Your task to perform on an android device: Go to battery settings Image 0: 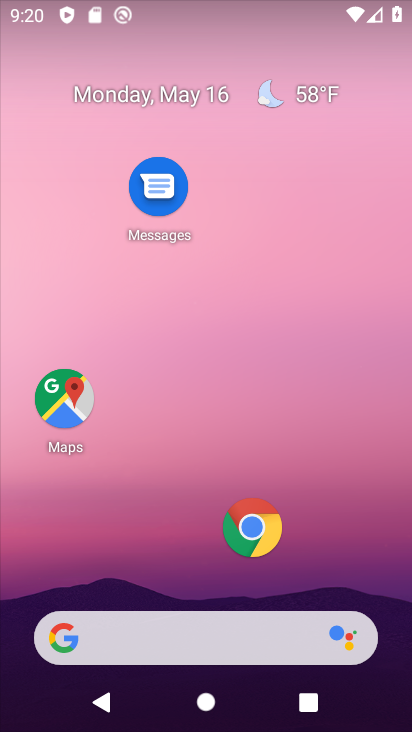
Step 0: drag from (181, 551) to (230, 67)
Your task to perform on an android device: Go to battery settings Image 1: 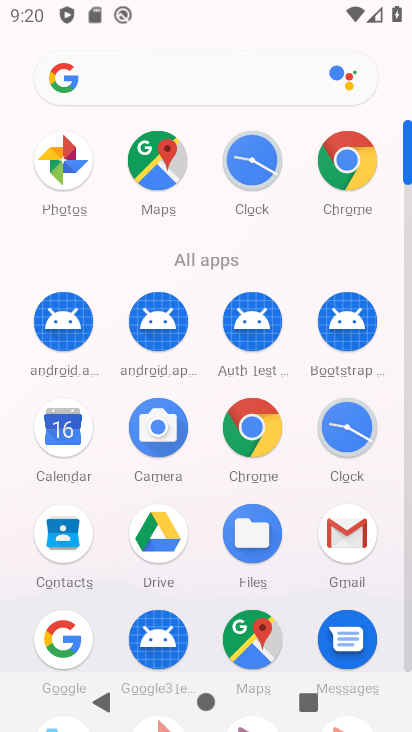
Step 1: drag from (85, 478) to (98, 125)
Your task to perform on an android device: Go to battery settings Image 2: 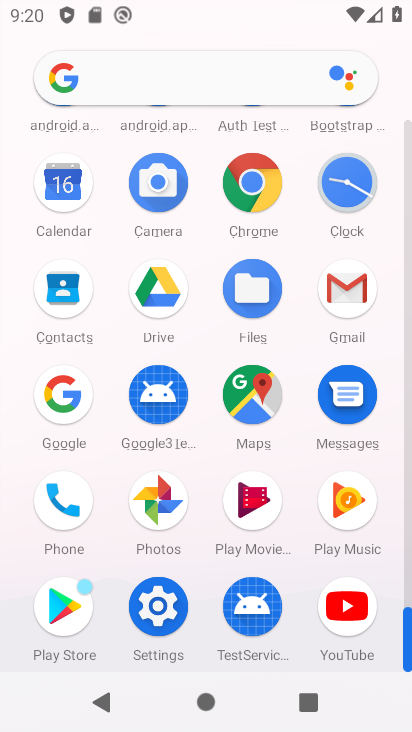
Step 2: click (159, 616)
Your task to perform on an android device: Go to battery settings Image 3: 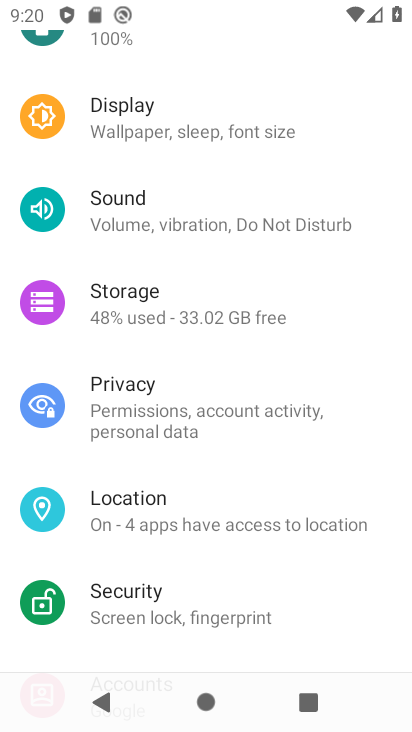
Step 3: drag from (184, 274) to (234, 573)
Your task to perform on an android device: Go to battery settings Image 4: 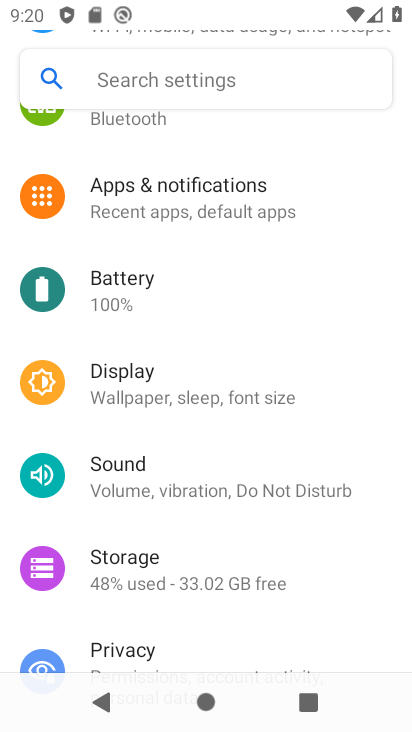
Step 4: click (151, 284)
Your task to perform on an android device: Go to battery settings Image 5: 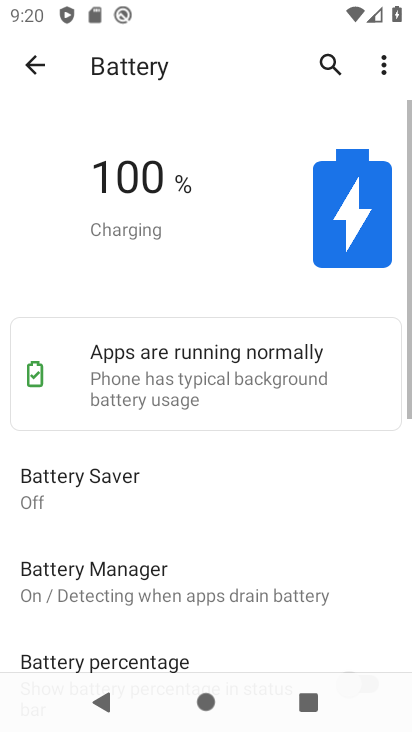
Step 5: task complete